Your task to perform on an android device: Find coffee shops on Maps Image 0: 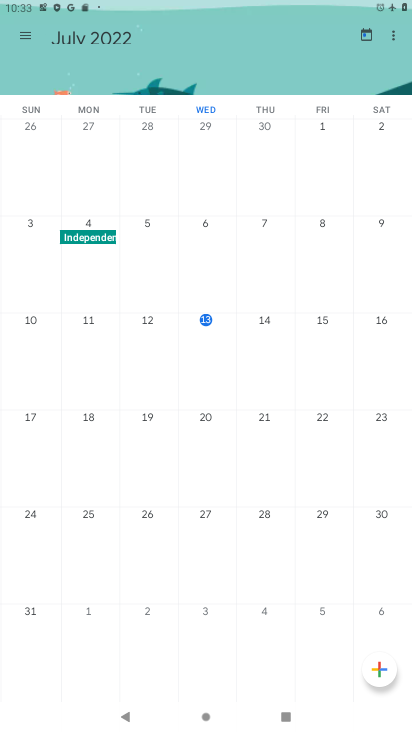
Step 0: press home button
Your task to perform on an android device: Find coffee shops on Maps Image 1: 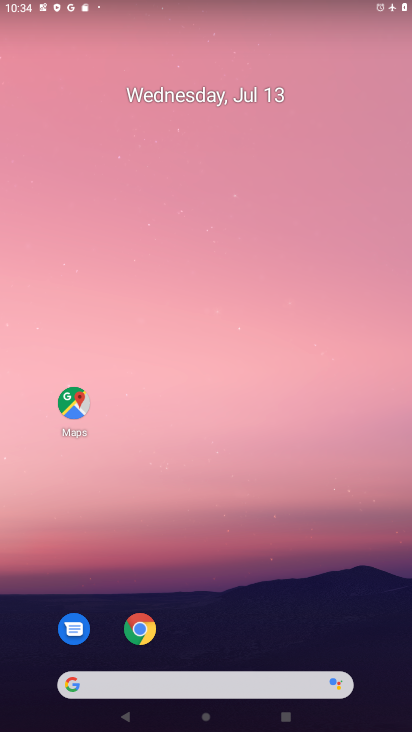
Step 1: click (89, 414)
Your task to perform on an android device: Find coffee shops on Maps Image 2: 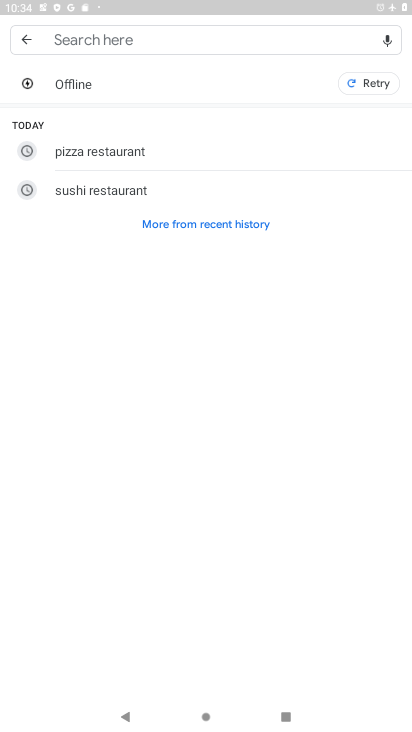
Step 2: click (202, 42)
Your task to perform on an android device: Find coffee shops on Maps Image 3: 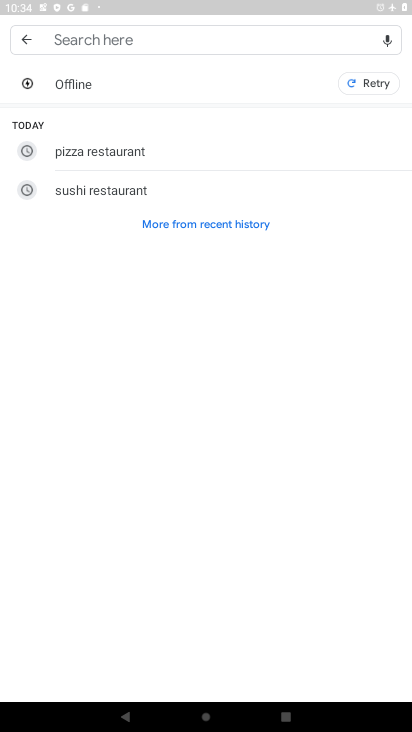
Step 3: task complete